Your task to perform on an android device: Search for a coffee table on Crate & Barrel Image 0: 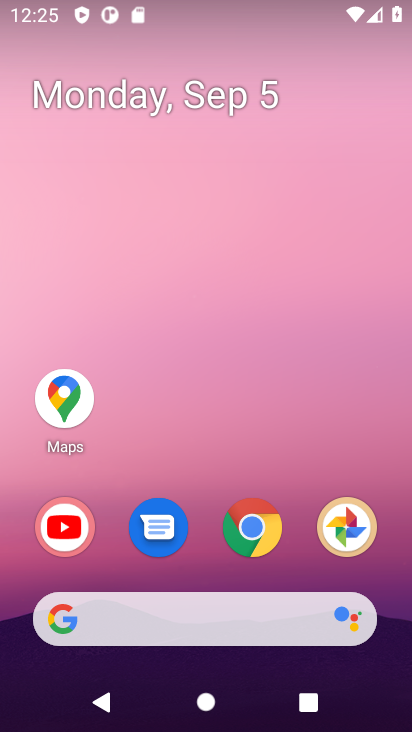
Step 0: click (255, 521)
Your task to perform on an android device: Search for a coffee table on Crate & Barrel Image 1: 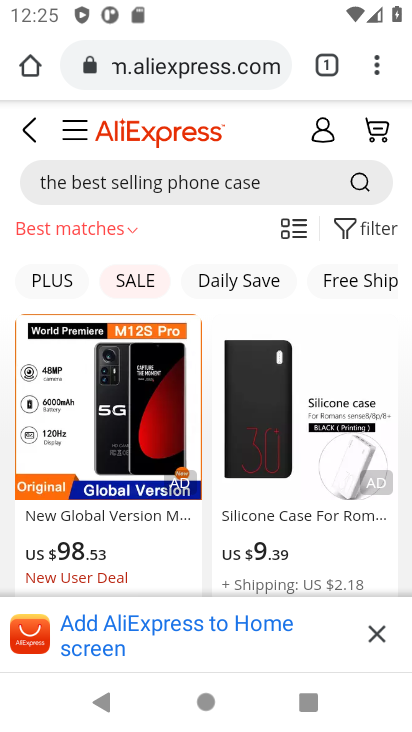
Step 1: click (205, 67)
Your task to perform on an android device: Search for a coffee table on Crate & Barrel Image 2: 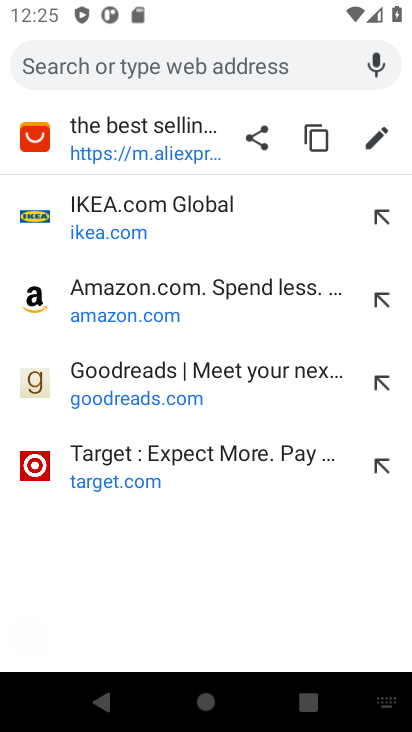
Step 2: type "crate and barrel"
Your task to perform on an android device: Search for a coffee table on Crate & Barrel Image 3: 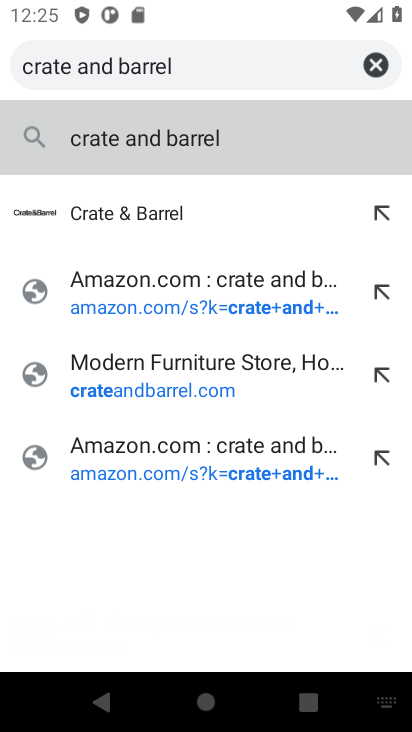
Step 3: click (256, 151)
Your task to perform on an android device: Search for a coffee table on Crate & Barrel Image 4: 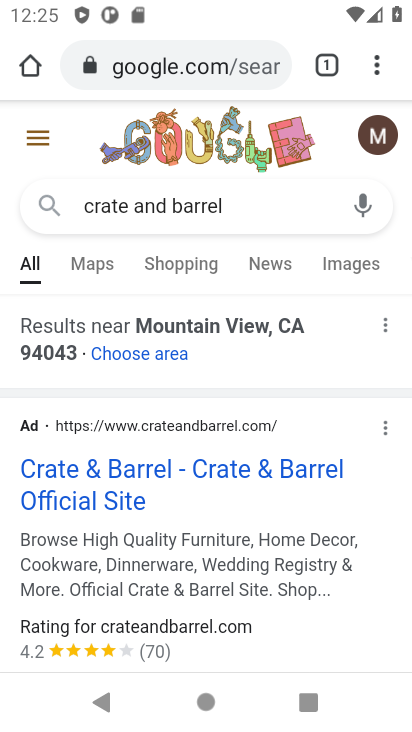
Step 4: click (113, 480)
Your task to perform on an android device: Search for a coffee table on Crate & Barrel Image 5: 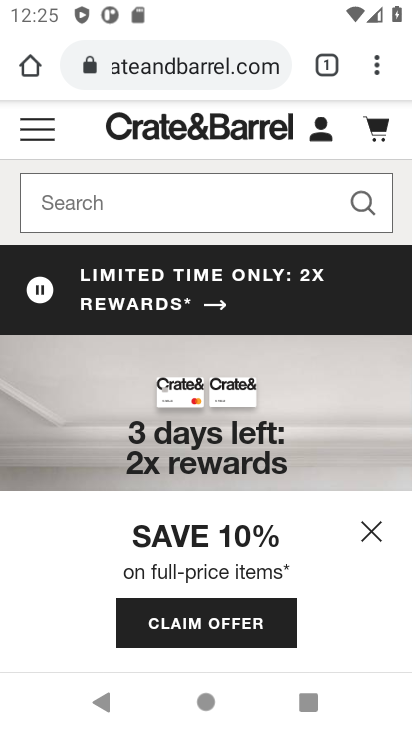
Step 5: click (189, 198)
Your task to perform on an android device: Search for a coffee table on Crate & Barrel Image 6: 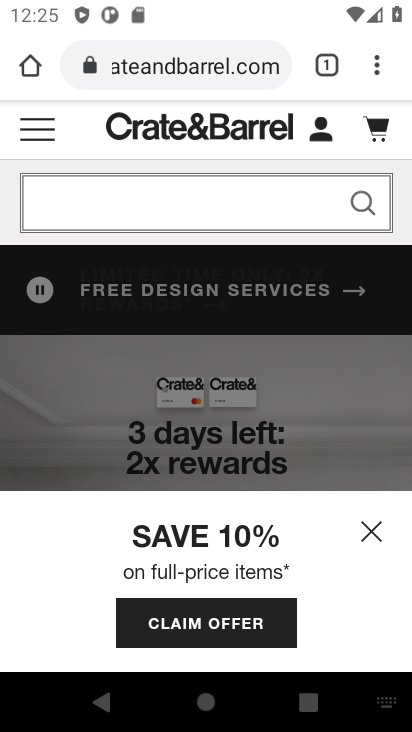
Step 6: click (374, 526)
Your task to perform on an android device: Search for a coffee table on Crate & Barrel Image 7: 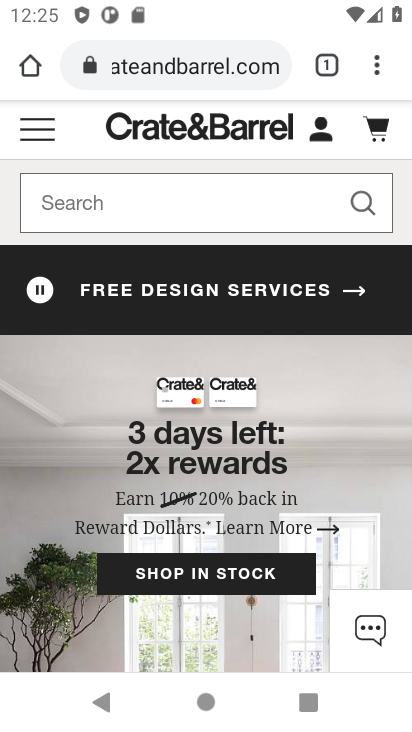
Step 7: click (222, 196)
Your task to perform on an android device: Search for a coffee table on Crate & Barrel Image 8: 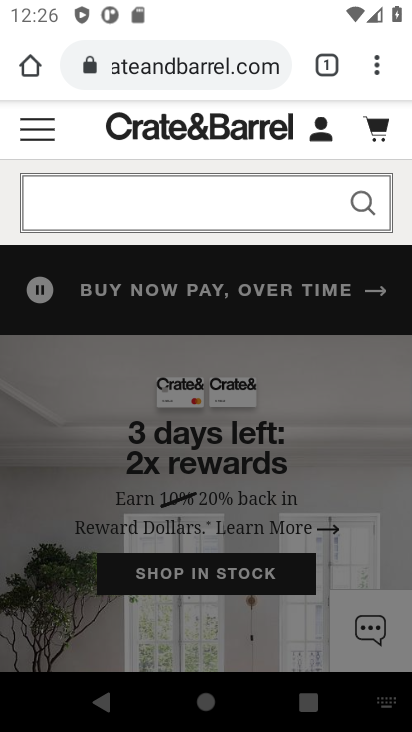
Step 8: type "coffee table"
Your task to perform on an android device: Search for a coffee table on Crate & Barrel Image 9: 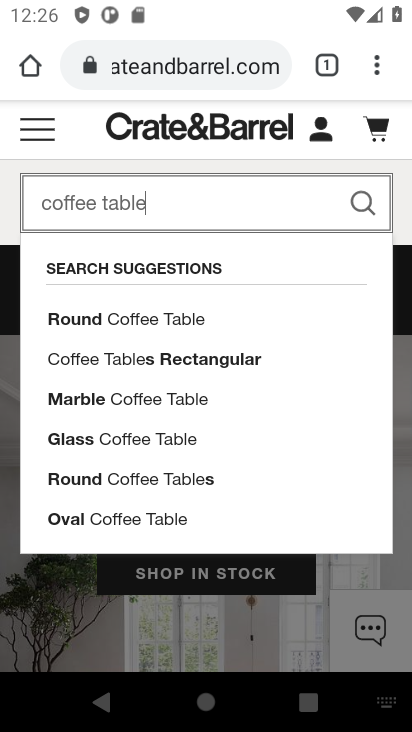
Step 9: click (354, 208)
Your task to perform on an android device: Search for a coffee table on Crate & Barrel Image 10: 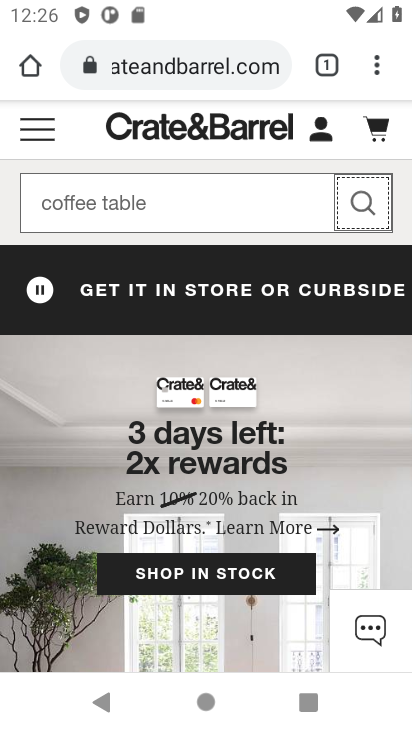
Step 10: click (354, 208)
Your task to perform on an android device: Search for a coffee table on Crate & Barrel Image 11: 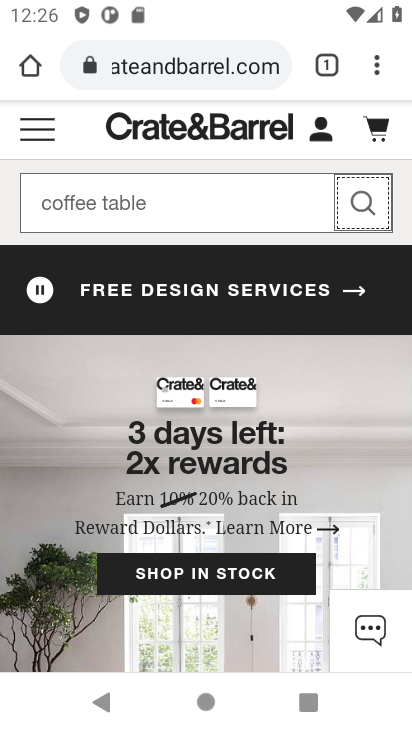
Step 11: click (355, 197)
Your task to perform on an android device: Search for a coffee table on Crate & Barrel Image 12: 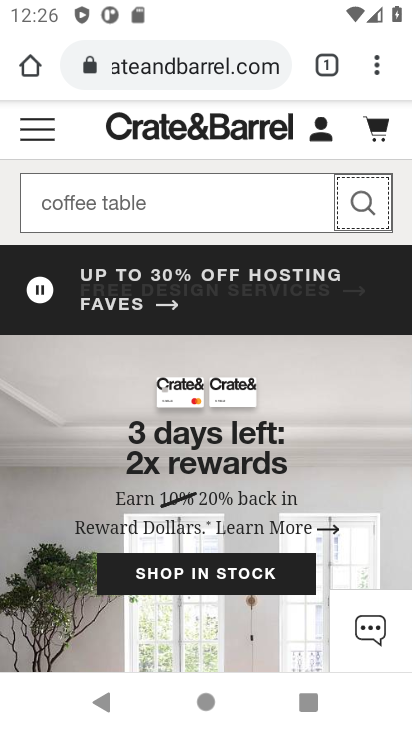
Step 12: click (355, 197)
Your task to perform on an android device: Search for a coffee table on Crate & Barrel Image 13: 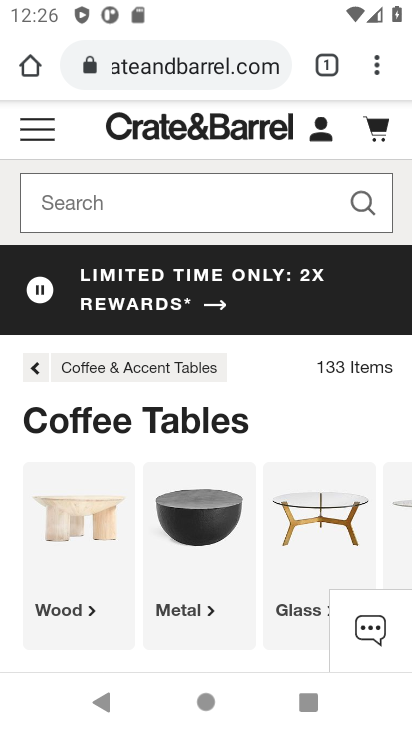
Step 13: task complete